Your task to perform on an android device: Is it going to rain today? Image 0: 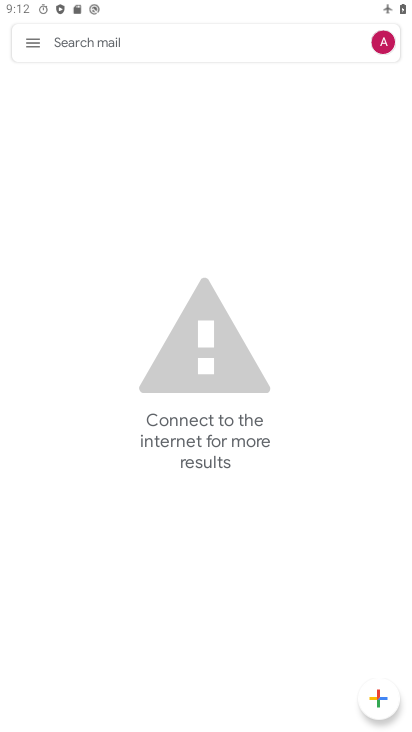
Step 0: press home button
Your task to perform on an android device: Is it going to rain today? Image 1: 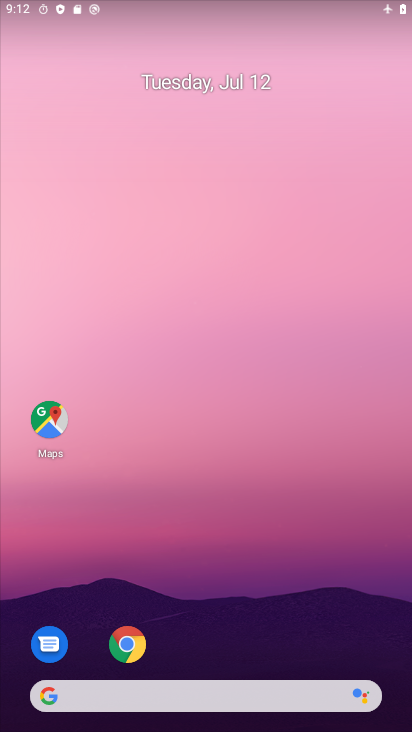
Step 1: drag from (180, 673) to (195, 324)
Your task to perform on an android device: Is it going to rain today? Image 2: 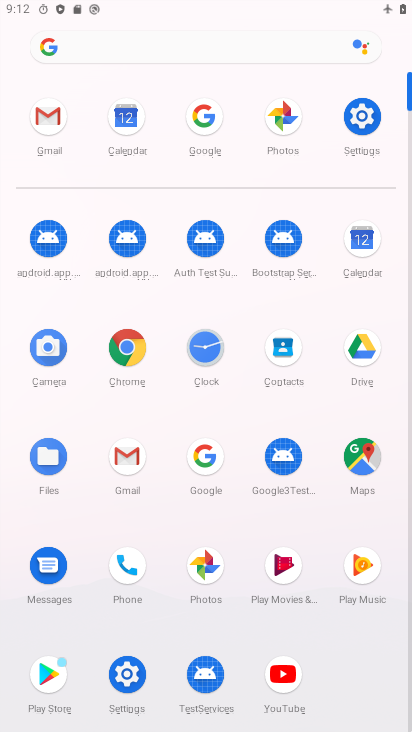
Step 2: click (207, 100)
Your task to perform on an android device: Is it going to rain today? Image 3: 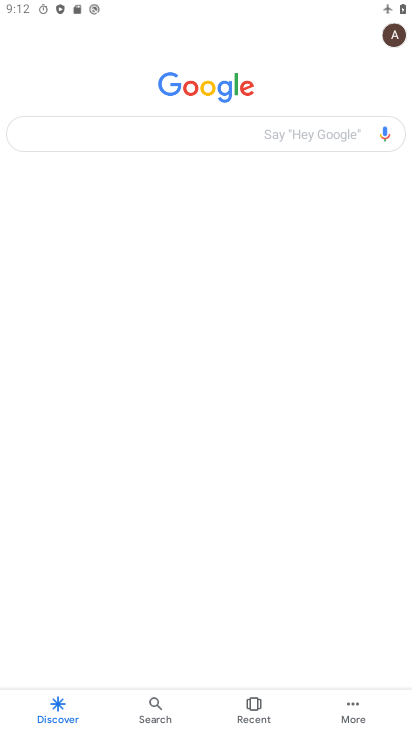
Step 3: click (164, 141)
Your task to perform on an android device: Is it going to rain today? Image 4: 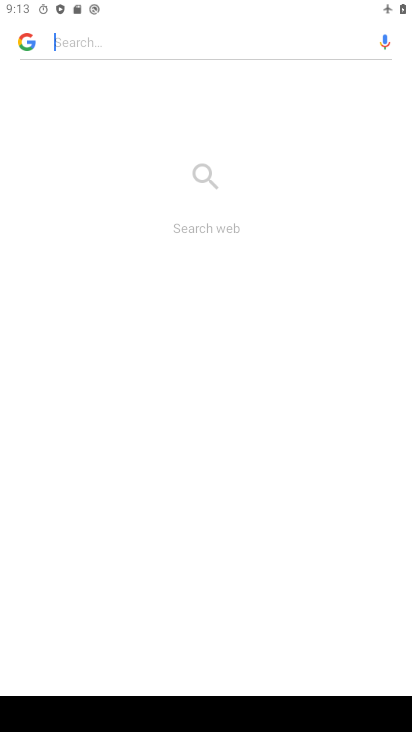
Step 4: type "weather"
Your task to perform on an android device: Is it going to rain today? Image 5: 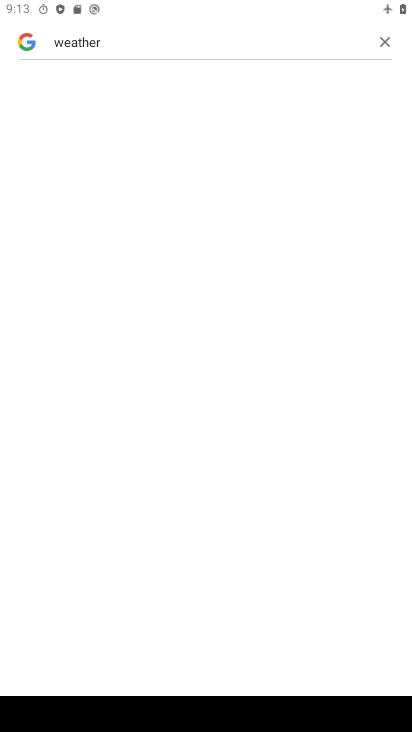
Step 5: task complete